Your task to perform on an android device: empty trash in the gmail app Image 0: 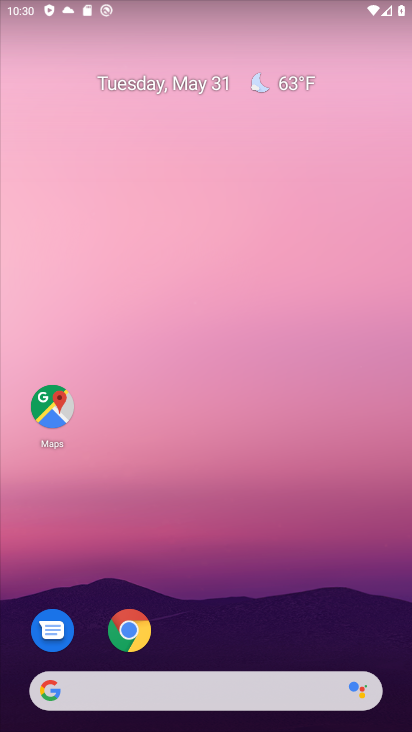
Step 0: drag from (187, 619) to (168, 168)
Your task to perform on an android device: empty trash in the gmail app Image 1: 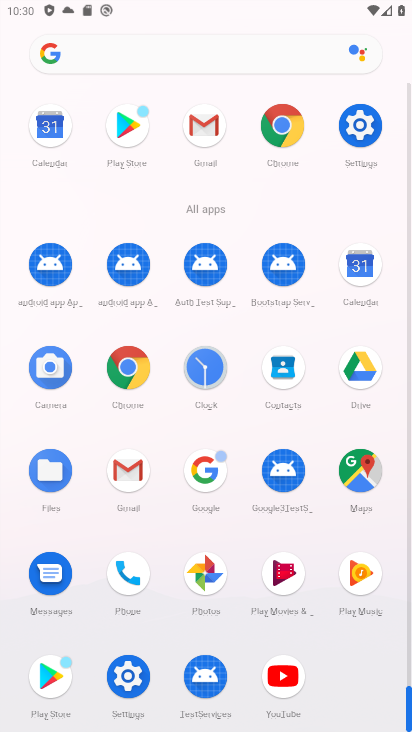
Step 1: click (200, 141)
Your task to perform on an android device: empty trash in the gmail app Image 2: 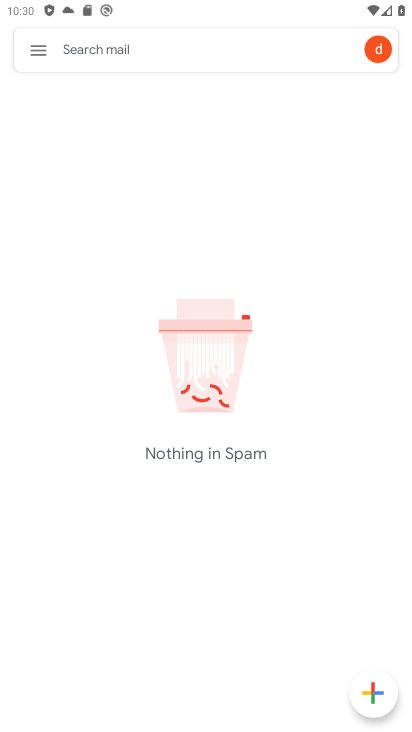
Step 2: click (40, 47)
Your task to perform on an android device: empty trash in the gmail app Image 3: 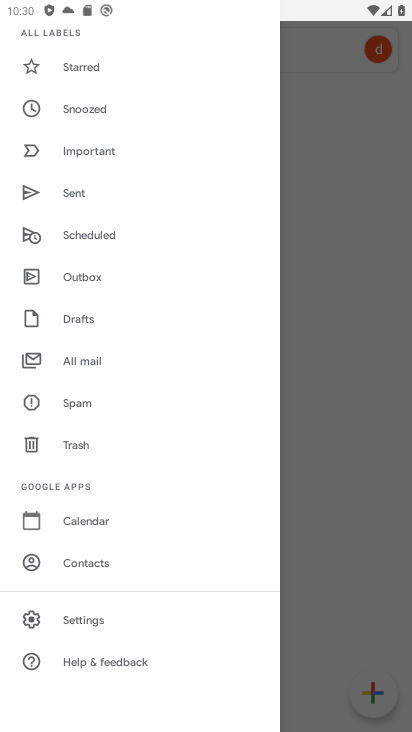
Step 3: click (87, 446)
Your task to perform on an android device: empty trash in the gmail app Image 4: 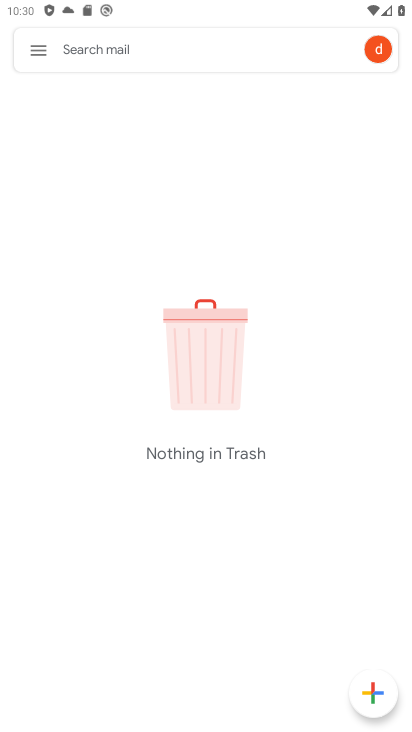
Step 4: task complete